Your task to perform on an android device: add a label to a message in the gmail app Image 0: 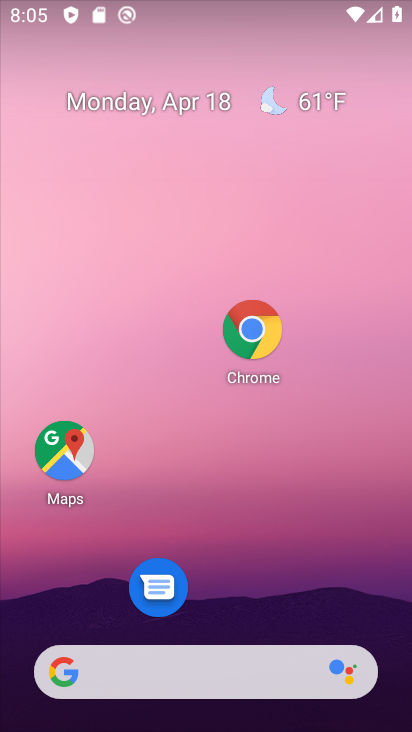
Step 0: drag from (235, 370) to (240, 250)
Your task to perform on an android device: add a label to a message in the gmail app Image 1: 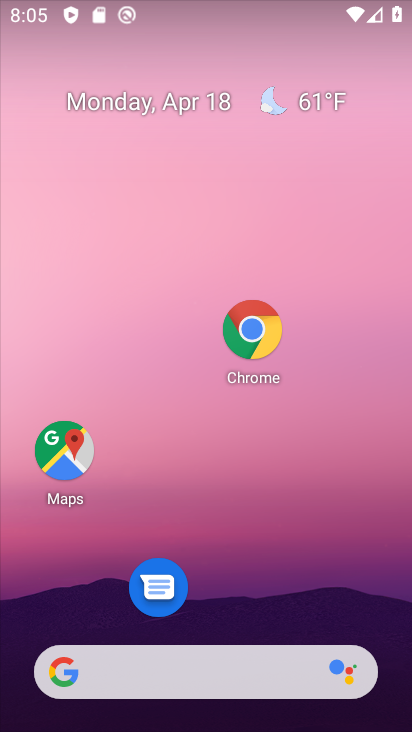
Step 1: drag from (273, 399) to (276, 251)
Your task to perform on an android device: add a label to a message in the gmail app Image 2: 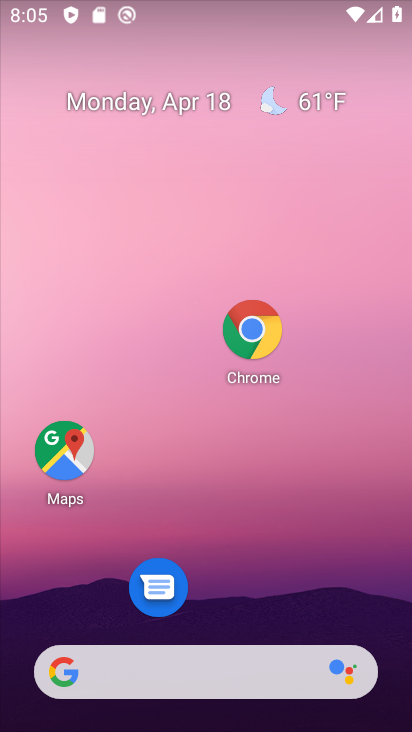
Step 2: click (281, 261)
Your task to perform on an android device: add a label to a message in the gmail app Image 3: 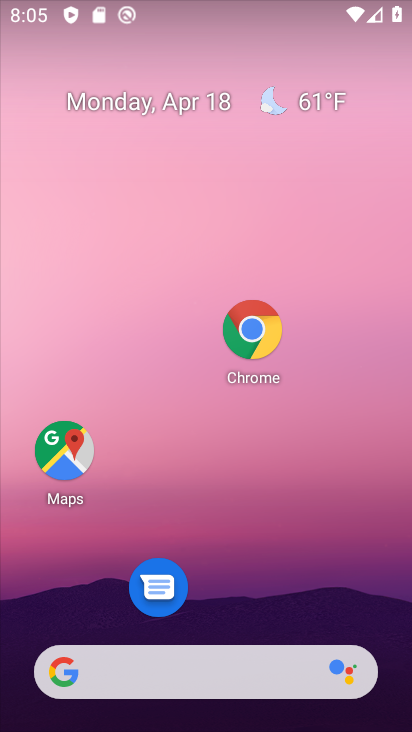
Step 3: drag from (290, 467) to (297, 145)
Your task to perform on an android device: add a label to a message in the gmail app Image 4: 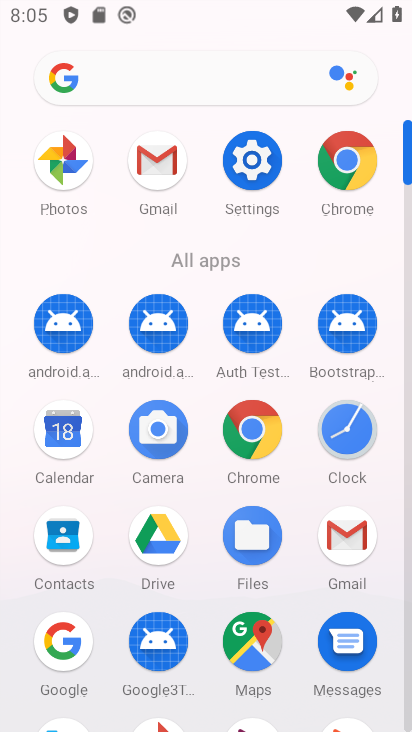
Step 4: click (349, 538)
Your task to perform on an android device: add a label to a message in the gmail app Image 5: 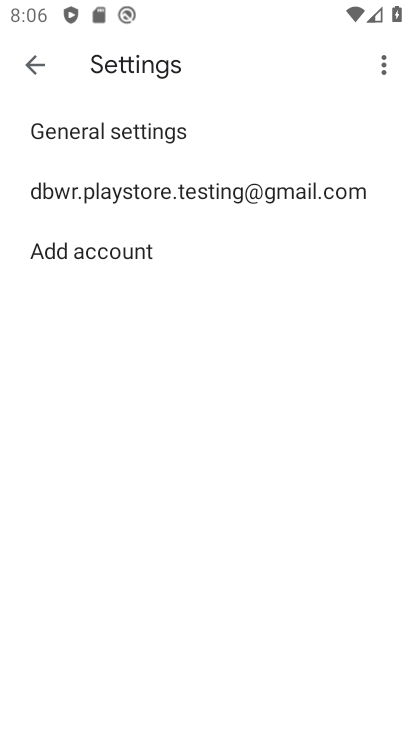
Step 5: click (249, 180)
Your task to perform on an android device: add a label to a message in the gmail app Image 6: 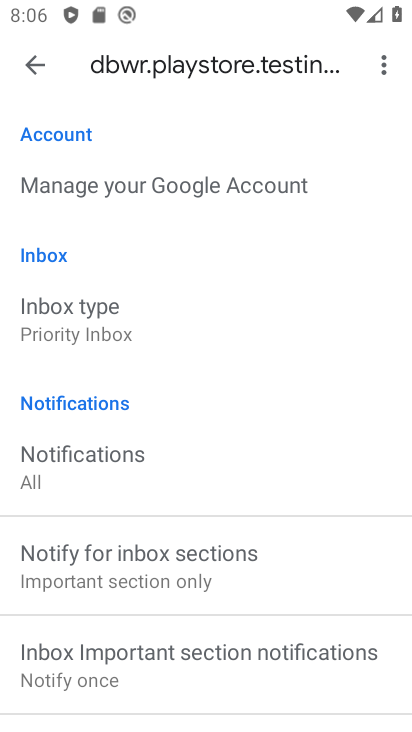
Step 6: press back button
Your task to perform on an android device: add a label to a message in the gmail app Image 7: 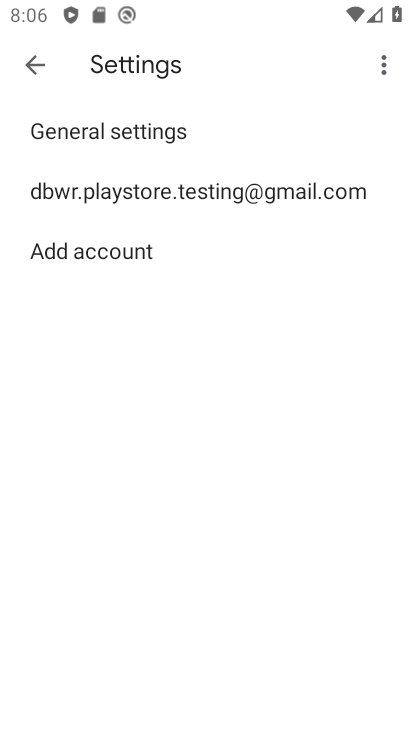
Step 7: press back button
Your task to perform on an android device: add a label to a message in the gmail app Image 8: 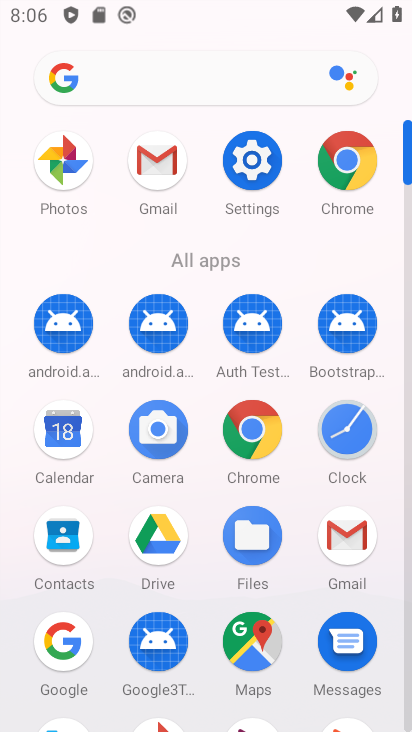
Step 8: click (161, 163)
Your task to perform on an android device: add a label to a message in the gmail app Image 9: 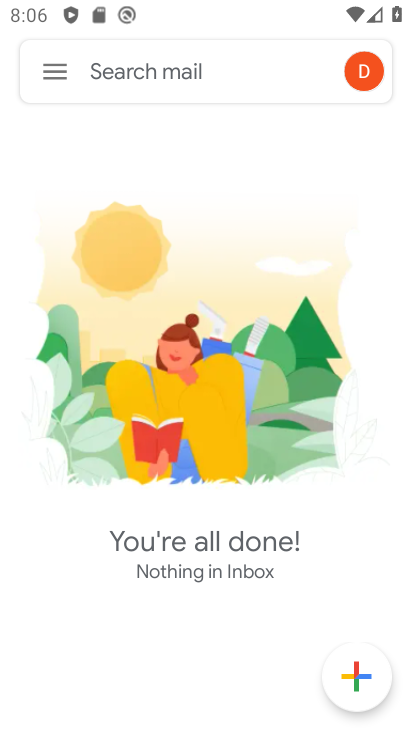
Step 9: click (54, 65)
Your task to perform on an android device: add a label to a message in the gmail app Image 10: 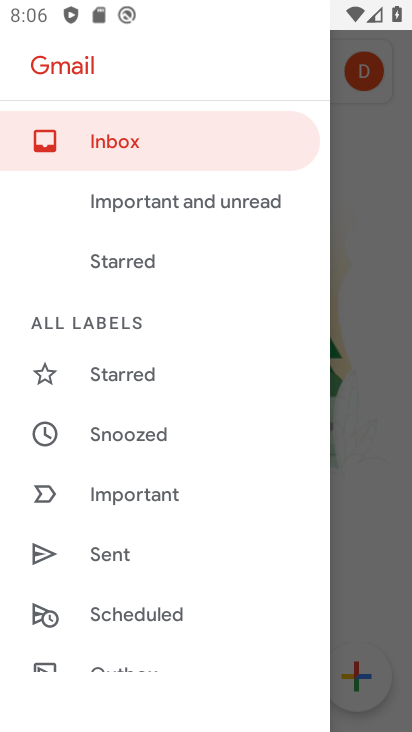
Step 10: drag from (132, 545) to (186, 255)
Your task to perform on an android device: add a label to a message in the gmail app Image 11: 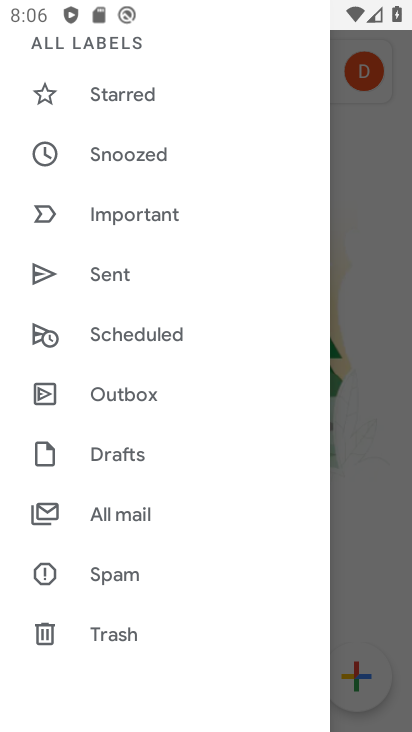
Step 11: click (109, 508)
Your task to perform on an android device: add a label to a message in the gmail app Image 12: 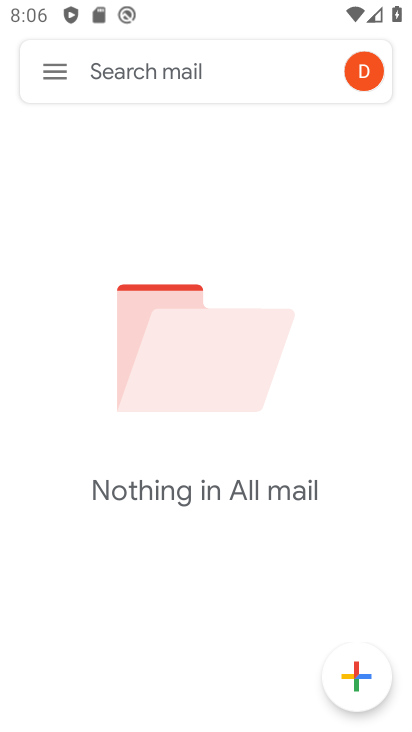
Step 12: task complete